Your task to perform on an android device: Go to internet settings Image 0: 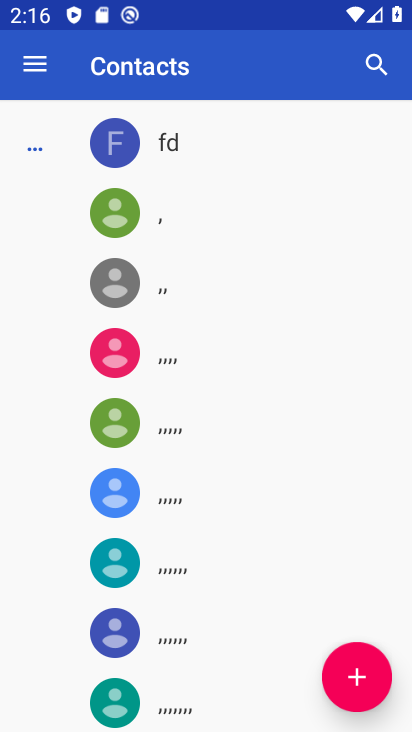
Step 0: press home button
Your task to perform on an android device: Go to internet settings Image 1: 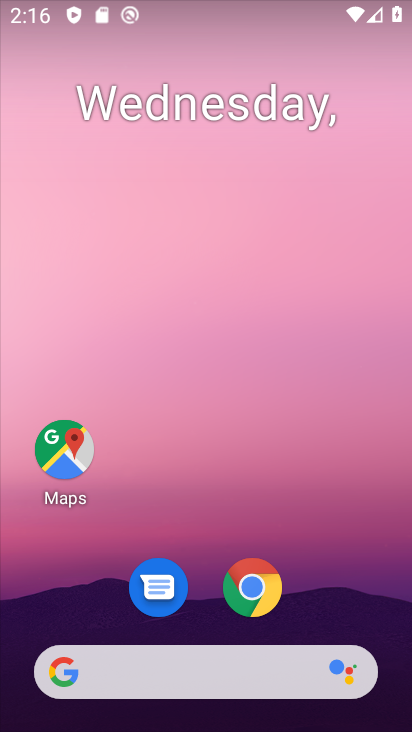
Step 1: drag from (357, 615) to (283, 142)
Your task to perform on an android device: Go to internet settings Image 2: 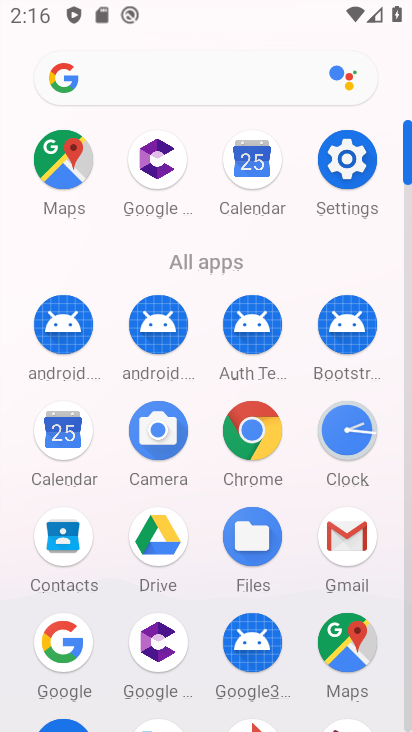
Step 2: click (338, 162)
Your task to perform on an android device: Go to internet settings Image 3: 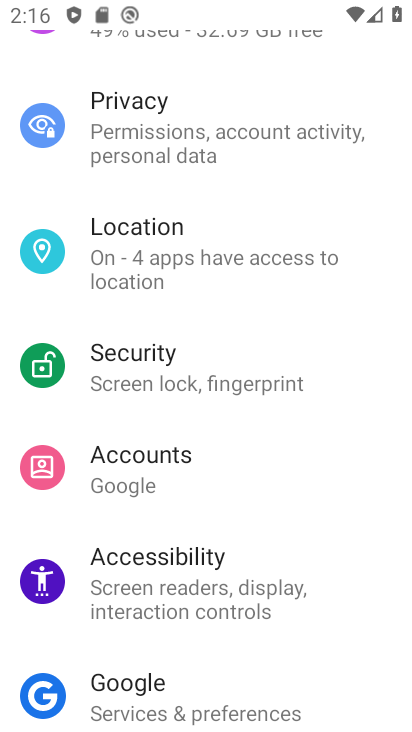
Step 3: drag from (272, 661) to (287, 722)
Your task to perform on an android device: Go to internet settings Image 4: 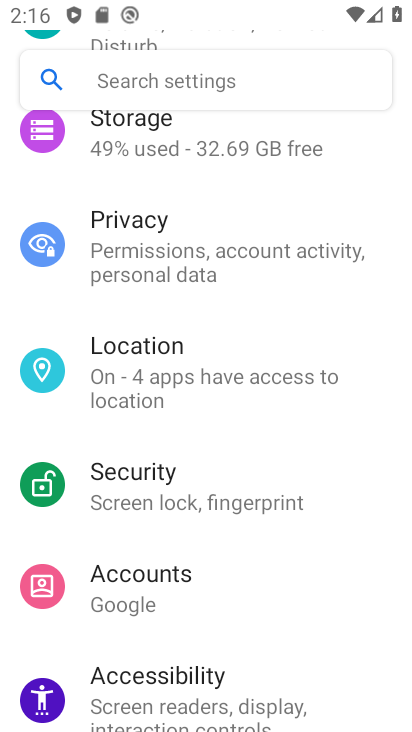
Step 4: drag from (244, 193) to (298, 604)
Your task to perform on an android device: Go to internet settings Image 5: 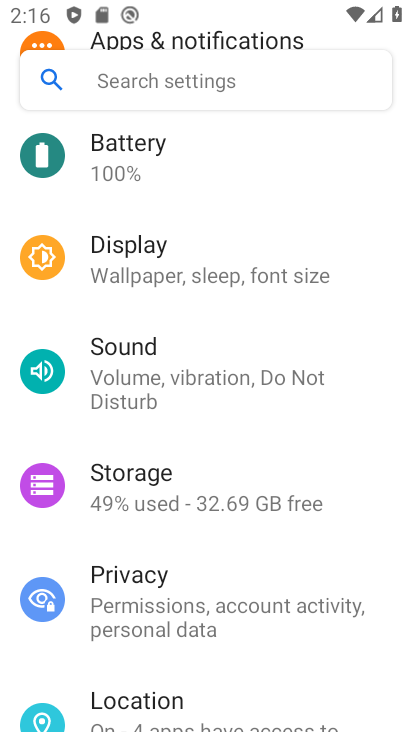
Step 5: drag from (220, 203) to (241, 581)
Your task to perform on an android device: Go to internet settings Image 6: 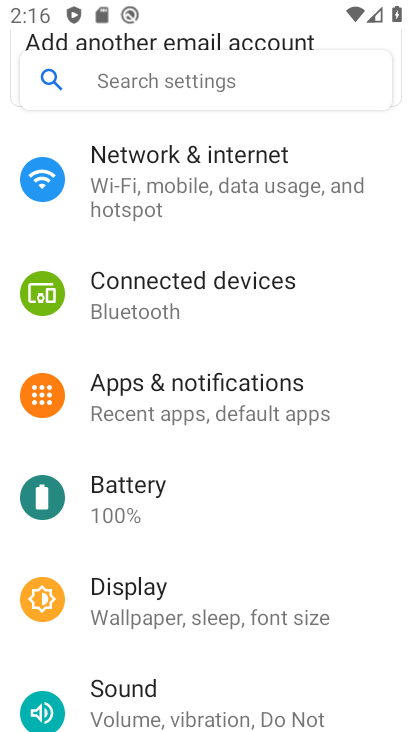
Step 6: click (205, 200)
Your task to perform on an android device: Go to internet settings Image 7: 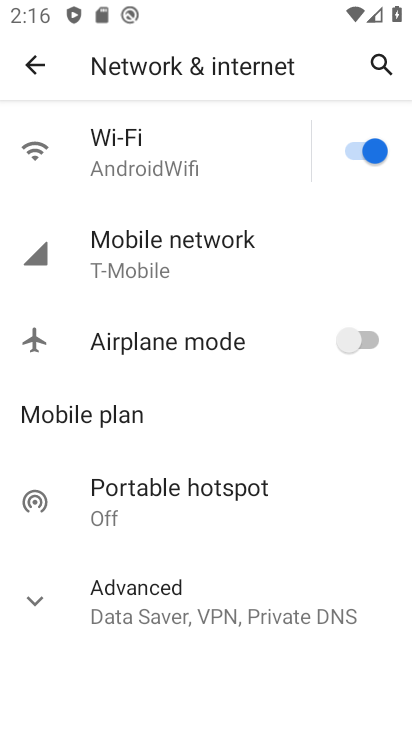
Step 7: task complete